Your task to perform on an android device: Go to Amazon Image 0: 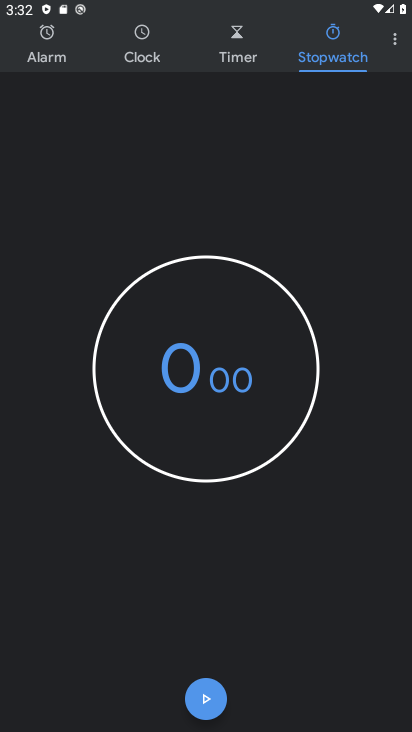
Step 0: press home button
Your task to perform on an android device: Go to Amazon Image 1: 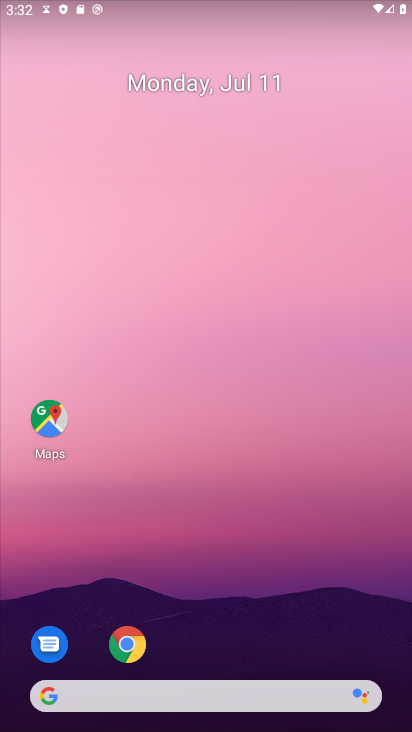
Step 1: drag from (245, 688) to (231, 146)
Your task to perform on an android device: Go to Amazon Image 2: 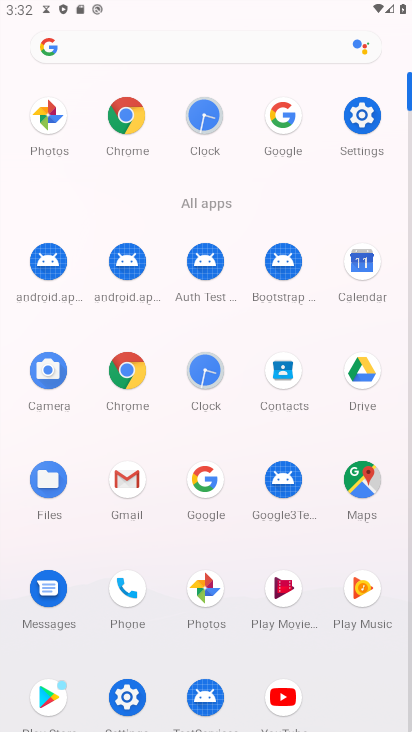
Step 2: click (131, 111)
Your task to perform on an android device: Go to Amazon Image 3: 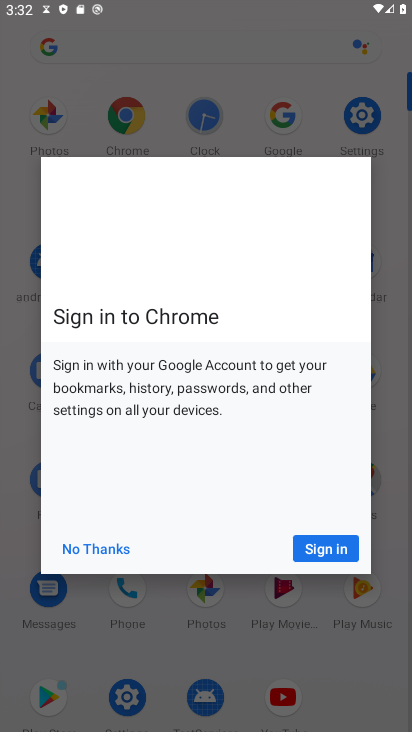
Step 3: click (78, 547)
Your task to perform on an android device: Go to Amazon Image 4: 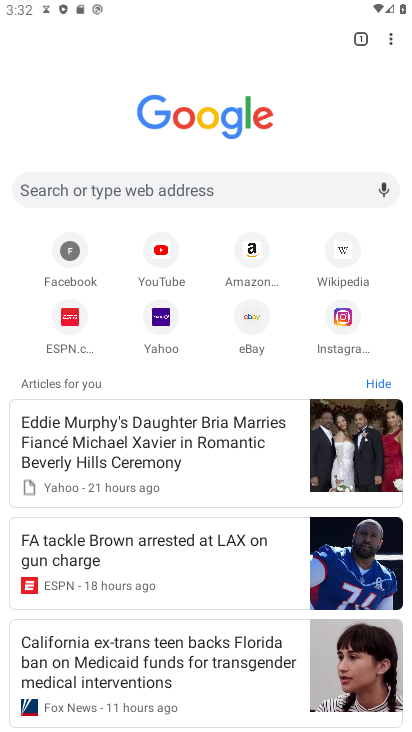
Step 4: click (252, 251)
Your task to perform on an android device: Go to Amazon Image 5: 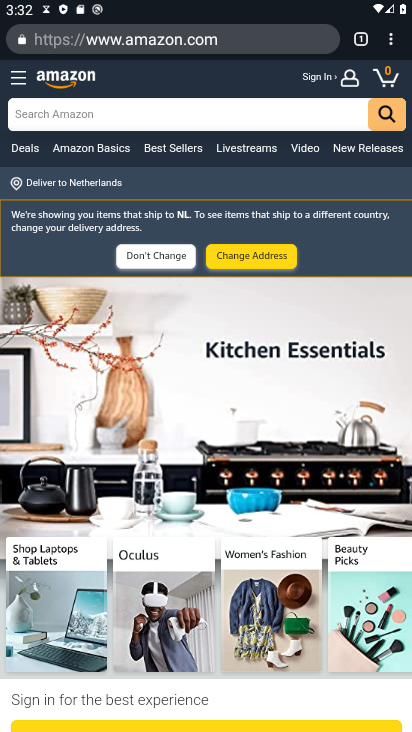
Step 5: task complete